Your task to perform on an android device: turn on bluetooth scan Image 0: 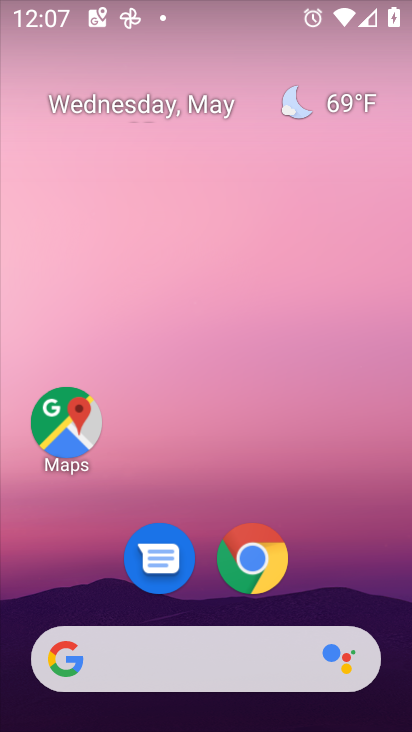
Step 0: drag from (397, 638) to (240, 61)
Your task to perform on an android device: turn on bluetooth scan Image 1: 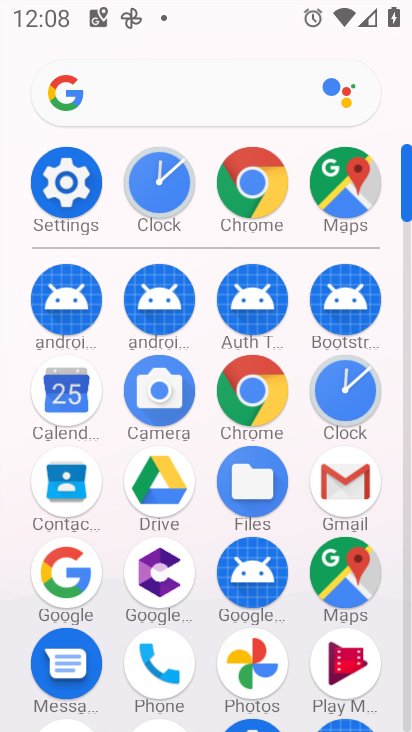
Step 1: click (85, 193)
Your task to perform on an android device: turn on bluetooth scan Image 2: 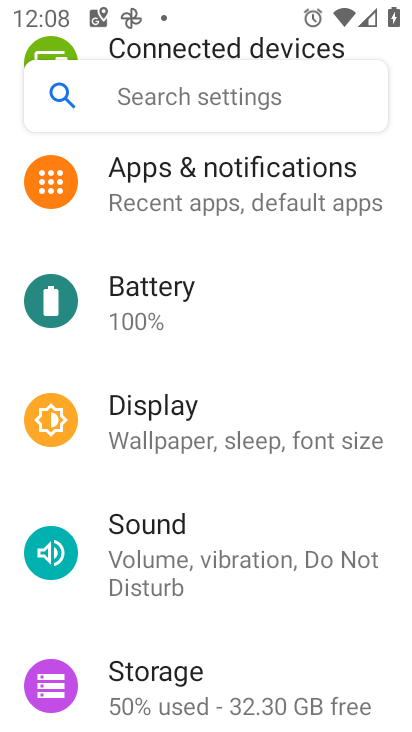
Step 2: drag from (213, 597) to (202, 217)
Your task to perform on an android device: turn on bluetooth scan Image 3: 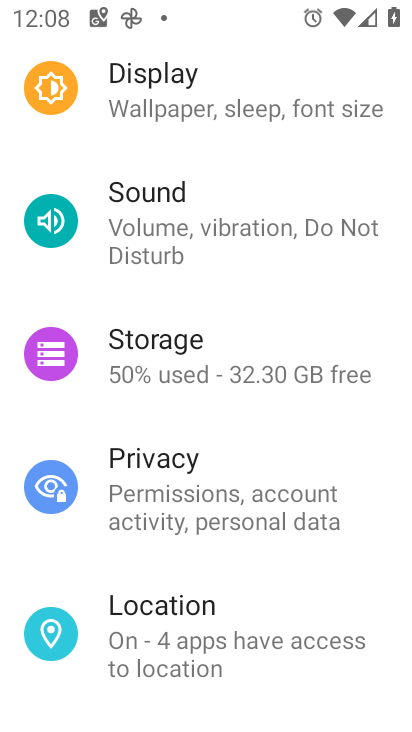
Step 3: click (205, 622)
Your task to perform on an android device: turn on bluetooth scan Image 4: 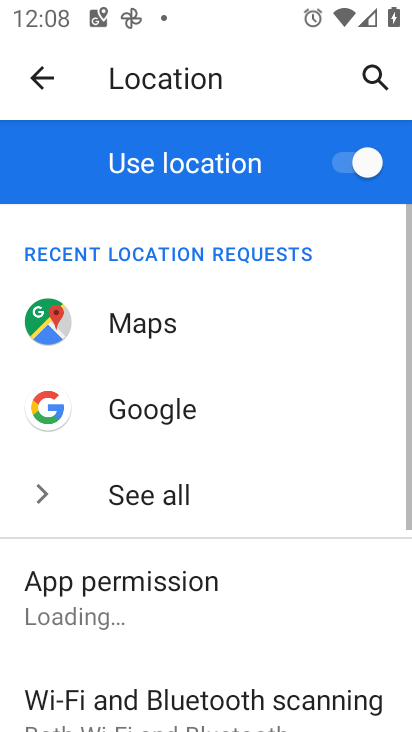
Step 4: drag from (205, 623) to (239, 170)
Your task to perform on an android device: turn on bluetooth scan Image 5: 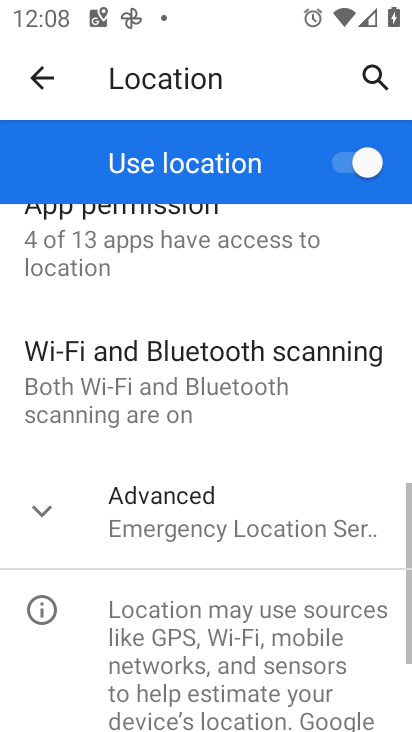
Step 5: click (202, 362)
Your task to perform on an android device: turn on bluetooth scan Image 6: 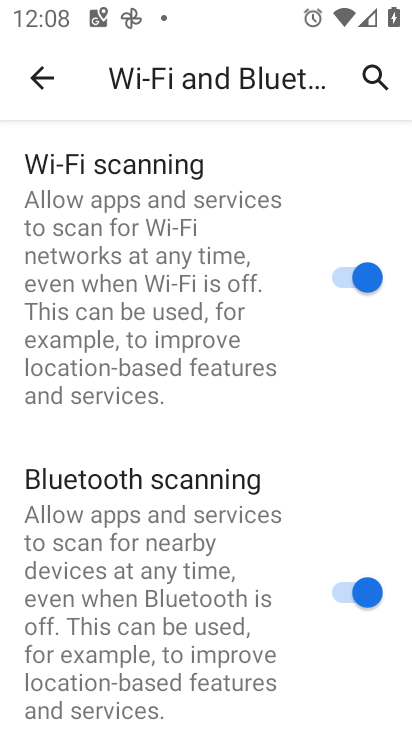
Step 6: task complete